Your task to perform on an android device: Show me popular videos on Youtube Image 0: 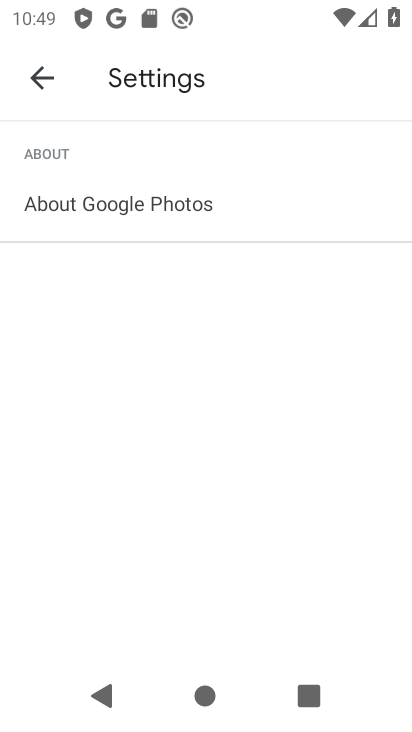
Step 0: press home button
Your task to perform on an android device: Show me popular videos on Youtube Image 1: 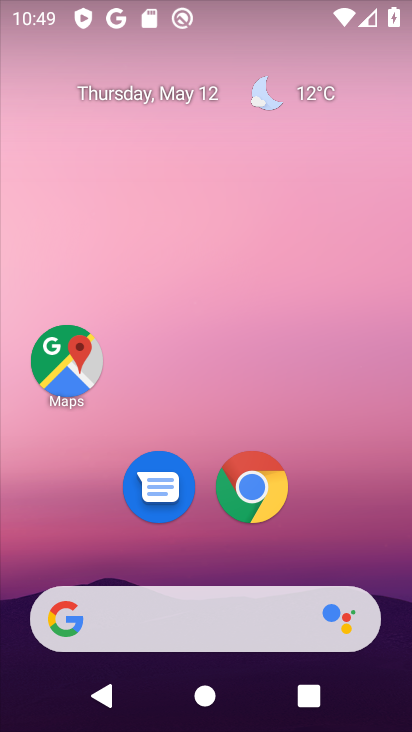
Step 1: drag from (368, 574) to (343, 0)
Your task to perform on an android device: Show me popular videos on Youtube Image 2: 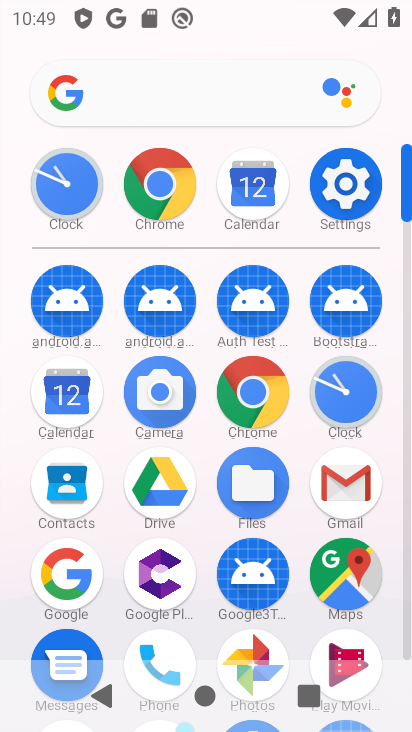
Step 2: drag from (408, 544) to (404, 501)
Your task to perform on an android device: Show me popular videos on Youtube Image 3: 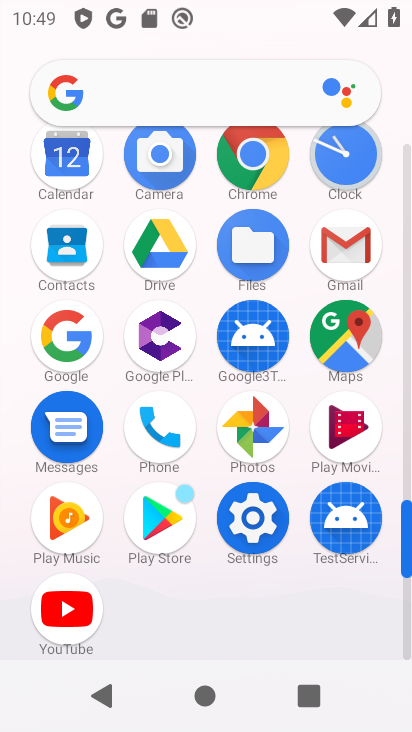
Step 3: click (75, 610)
Your task to perform on an android device: Show me popular videos on Youtube Image 4: 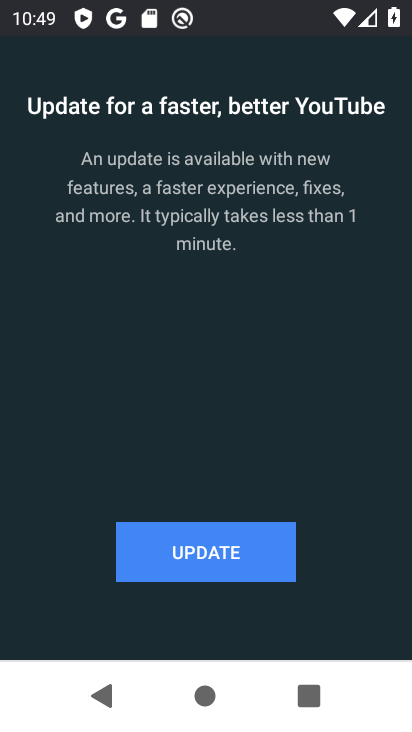
Step 4: click (197, 569)
Your task to perform on an android device: Show me popular videos on Youtube Image 5: 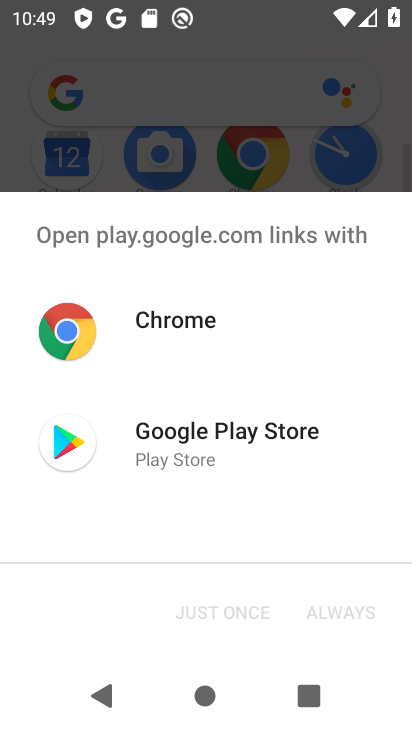
Step 5: click (149, 447)
Your task to perform on an android device: Show me popular videos on Youtube Image 6: 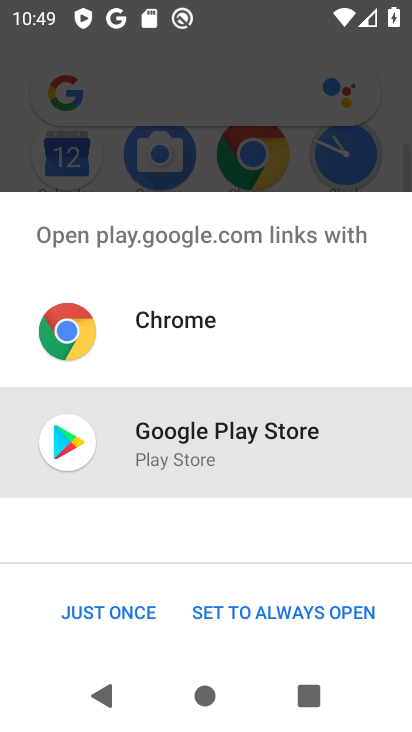
Step 6: click (134, 621)
Your task to perform on an android device: Show me popular videos on Youtube Image 7: 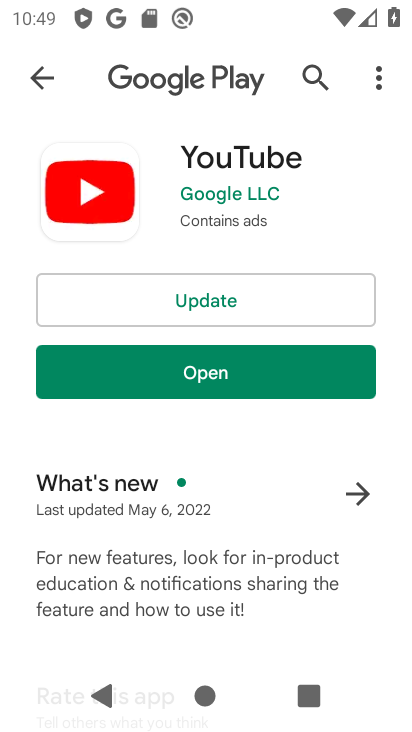
Step 7: click (188, 307)
Your task to perform on an android device: Show me popular videos on Youtube Image 8: 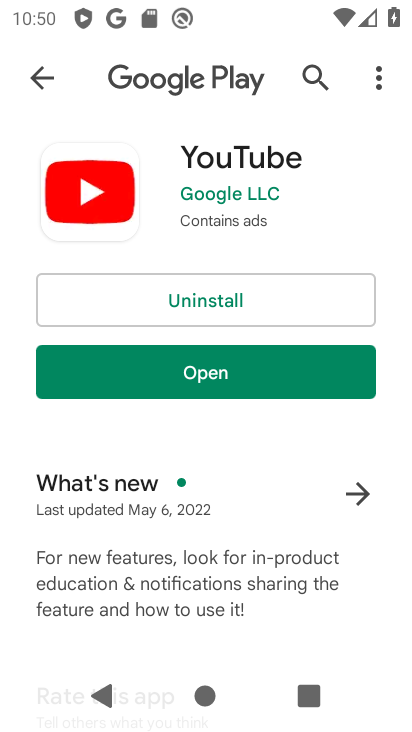
Step 8: click (228, 387)
Your task to perform on an android device: Show me popular videos on Youtube Image 9: 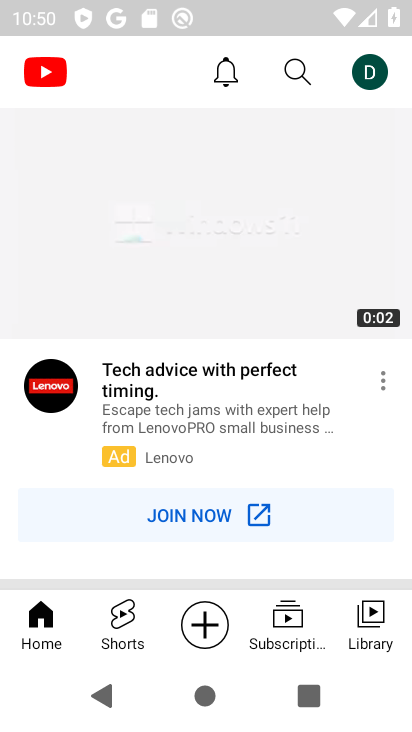
Step 9: click (33, 638)
Your task to perform on an android device: Show me popular videos on Youtube Image 10: 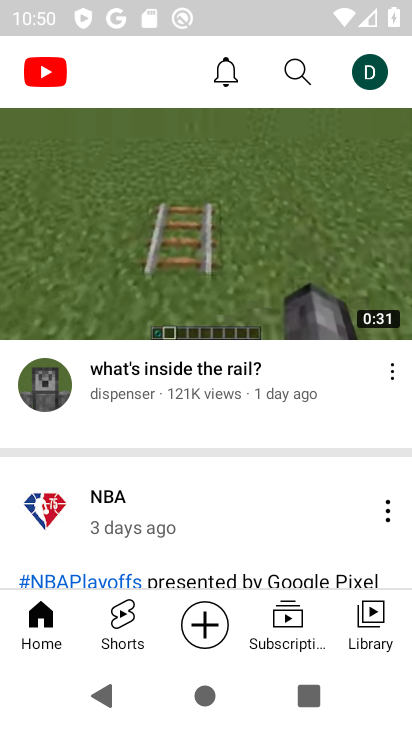
Step 10: task complete